Your task to perform on an android device: Open Google Chrome Image 0: 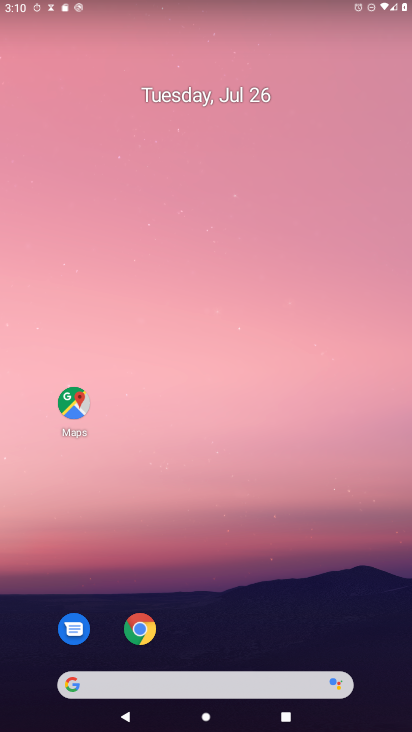
Step 0: drag from (178, 646) to (188, 12)
Your task to perform on an android device: Open Google Chrome Image 1: 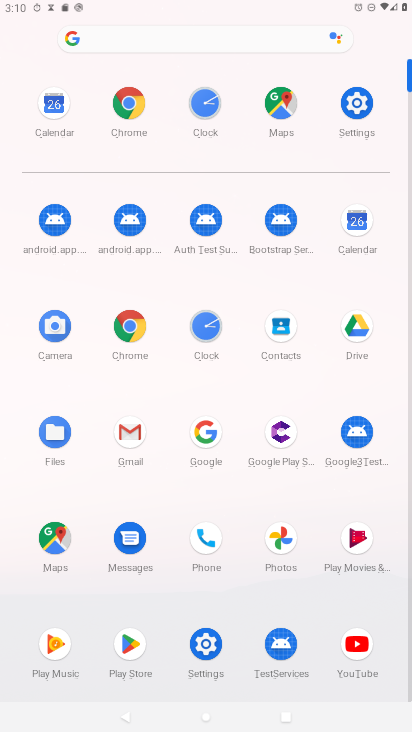
Step 1: click (128, 322)
Your task to perform on an android device: Open Google Chrome Image 2: 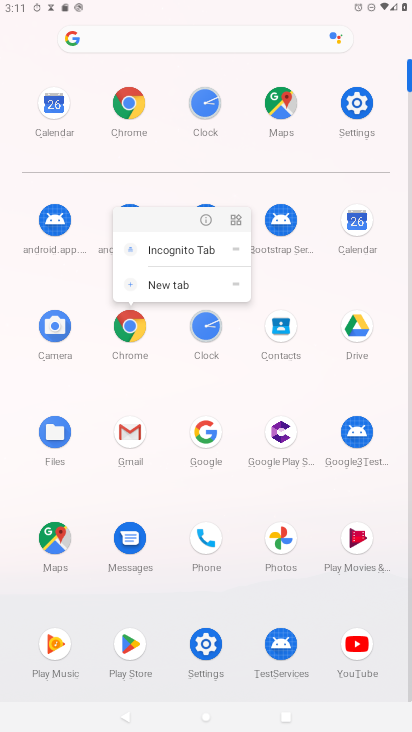
Step 2: click (135, 318)
Your task to perform on an android device: Open Google Chrome Image 3: 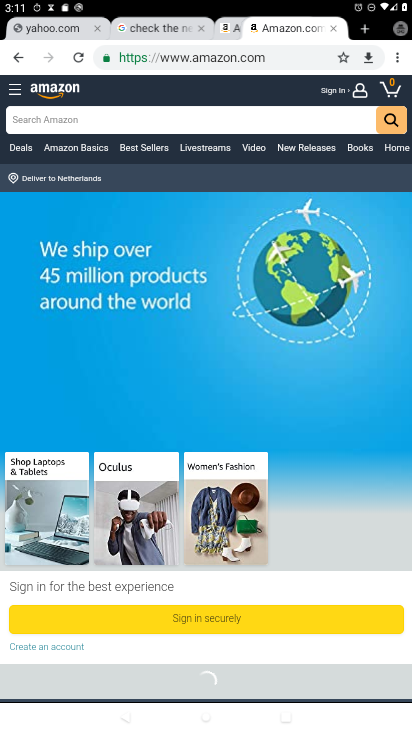
Step 3: task complete